Your task to perform on an android device: What's on my calendar today? Image 0: 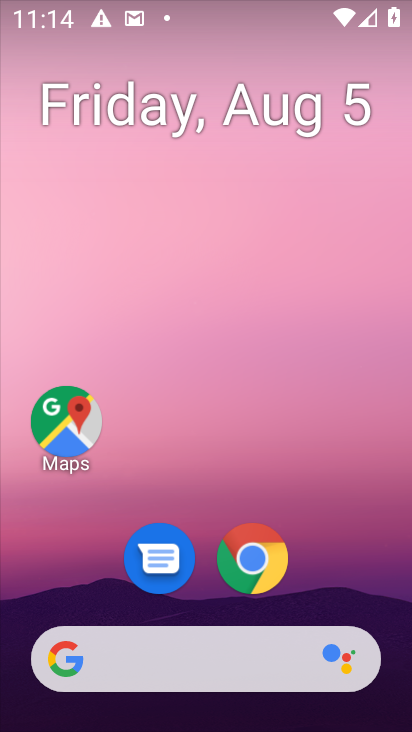
Step 0: drag from (338, 531) to (338, 169)
Your task to perform on an android device: What's on my calendar today? Image 1: 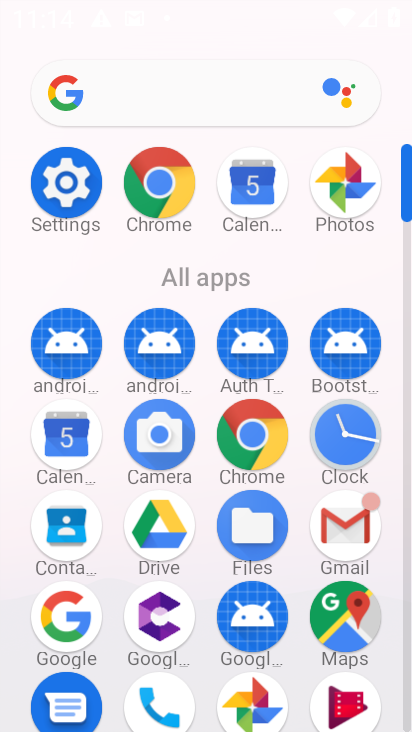
Step 1: click (75, 446)
Your task to perform on an android device: What's on my calendar today? Image 2: 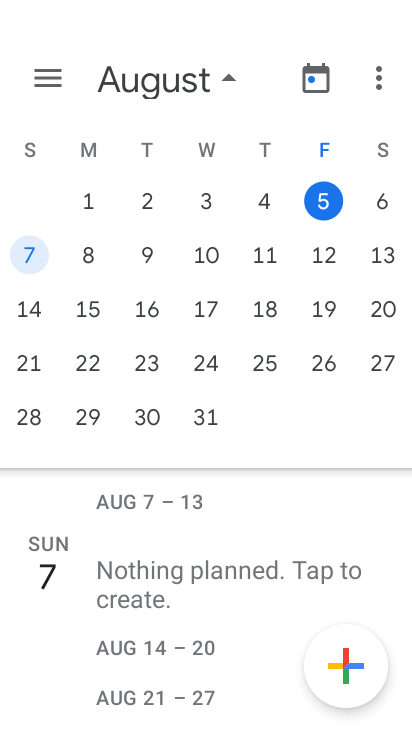
Step 2: click (385, 204)
Your task to perform on an android device: What's on my calendar today? Image 3: 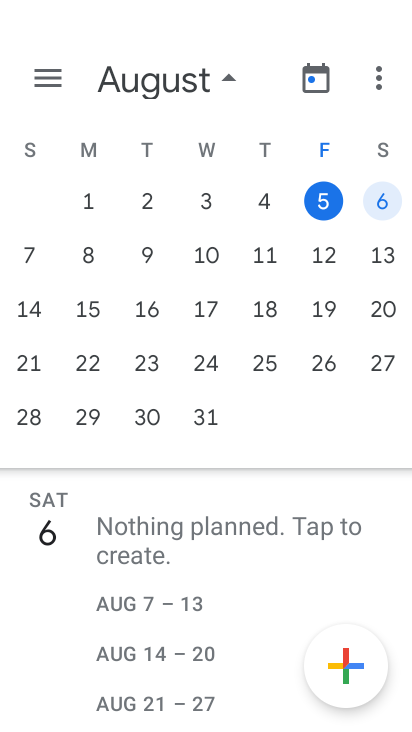
Step 3: task complete